Your task to perform on an android device: turn off improve location accuracy Image 0: 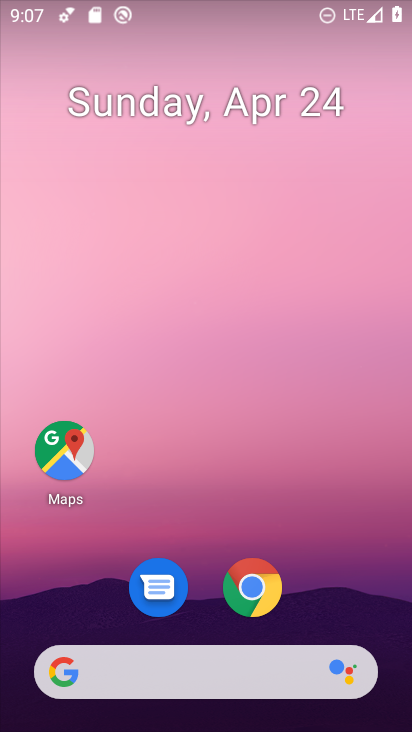
Step 0: press home button
Your task to perform on an android device: turn off improve location accuracy Image 1: 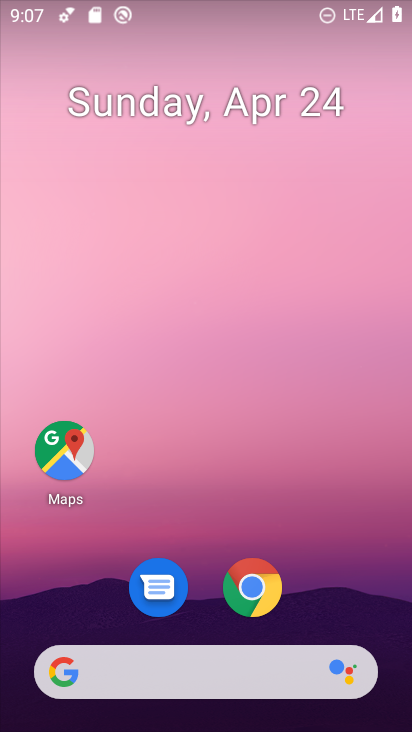
Step 1: drag from (359, 495) to (381, 205)
Your task to perform on an android device: turn off improve location accuracy Image 2: 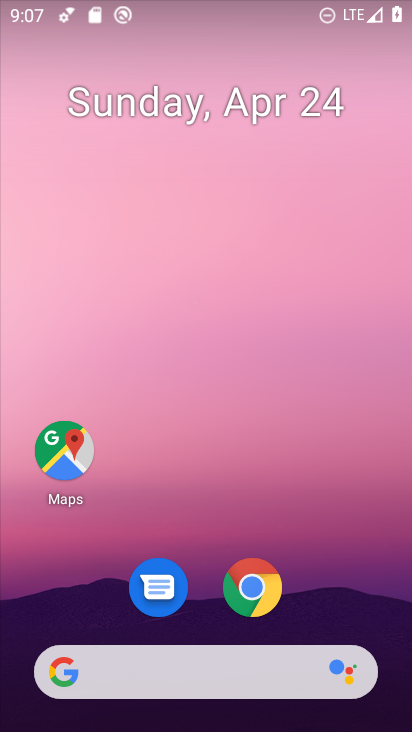
Step 2: drag from (369, 560) to (332, 149)
Your task to perform on an android device: turn off improve location accuracy Image 3: 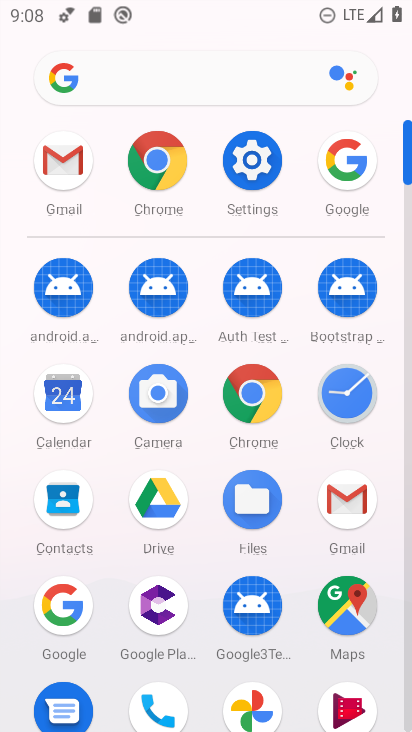
Step 3: click (263, 184)
Your task to perform on an android device: turn off improve location accuracy Image 4: 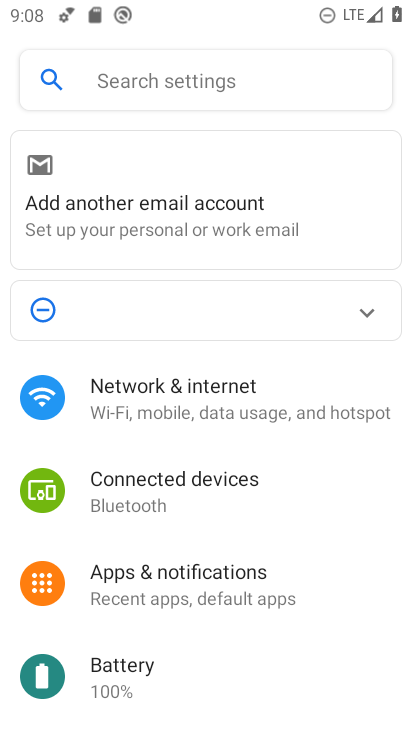
Step 4: drag from (315, 619) to (321, 292)
Your task to perform on an android device: turn off improve location accuracy Image 5: 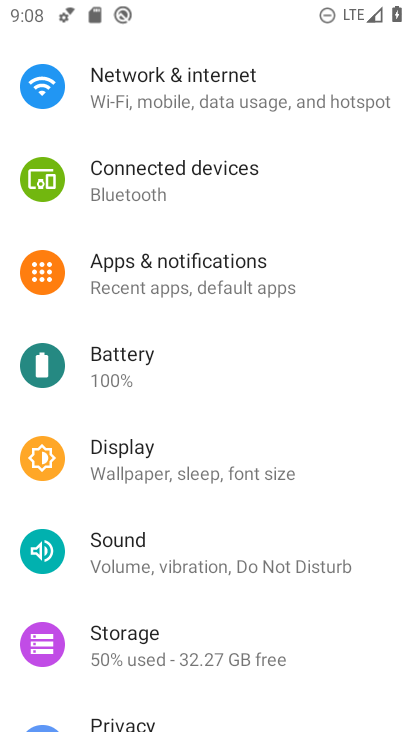
Step 5: drag from (334, 643) to (344, 316)
Your task to perform on an android device: turn off improve location accuracy Image 6: 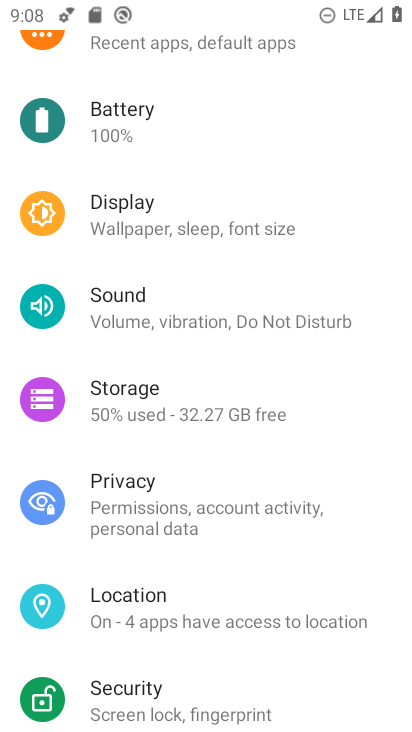
Step 6: click (162, 609)
Your task to perform on an android device: turn off improve location accuracy Image 7: 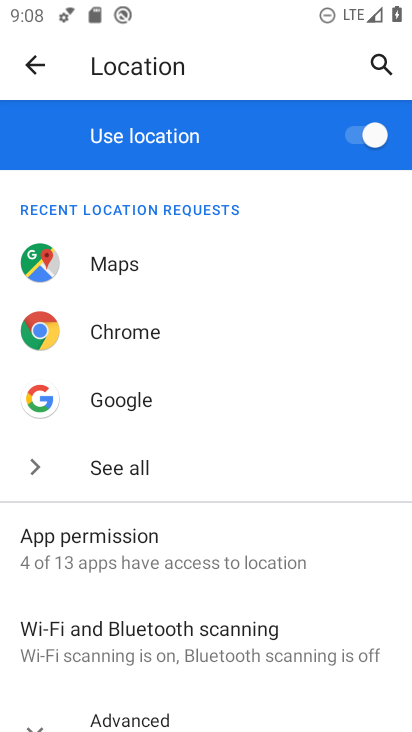
Step 7: drag from (336, 605) to (364, 388)
Your task to perform on an android device: turn off improve location accuracy Image 8: 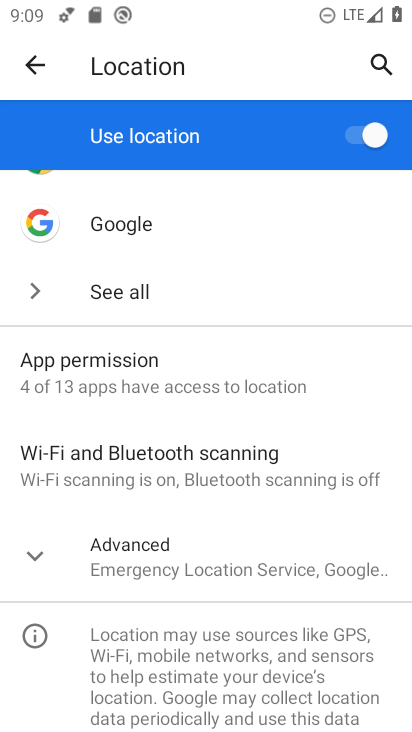
Step 8: click (191, 567)
Your task to perform on an android device: turn off improve location accuracy Image 9: 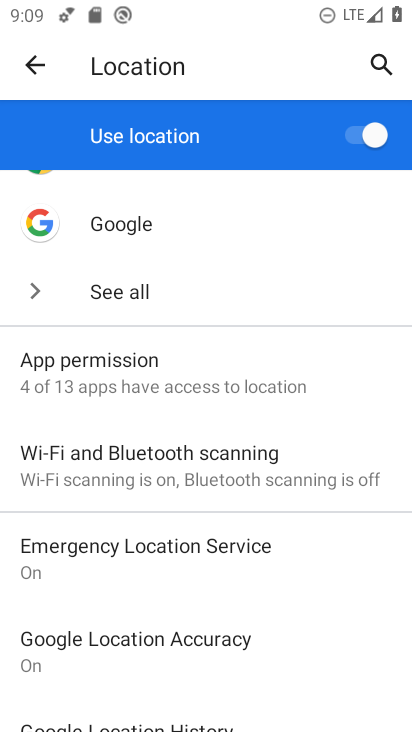
Step 9: drag from (294, 627) to (333, 391)
Your task to perform on an android device: turn off improve location accuracy Image 10: 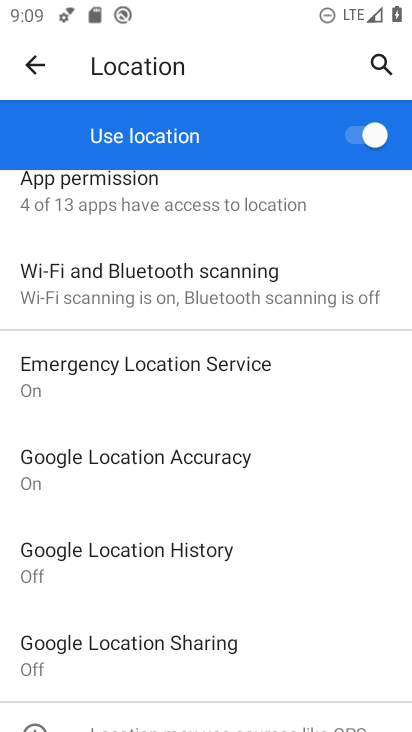
Step 10: click (127, 459)
Your task to perform on an android device: turn off improve location accuracy Image 11: 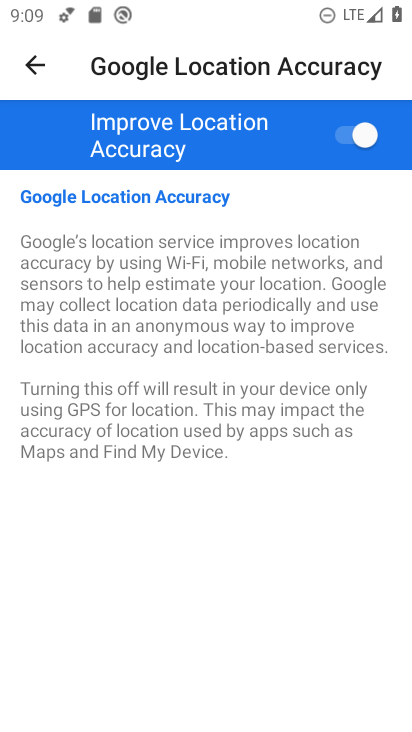
Step 11: click (342, 140)
Your task to perform on an android device: turn off improve location accuracy Image 12: 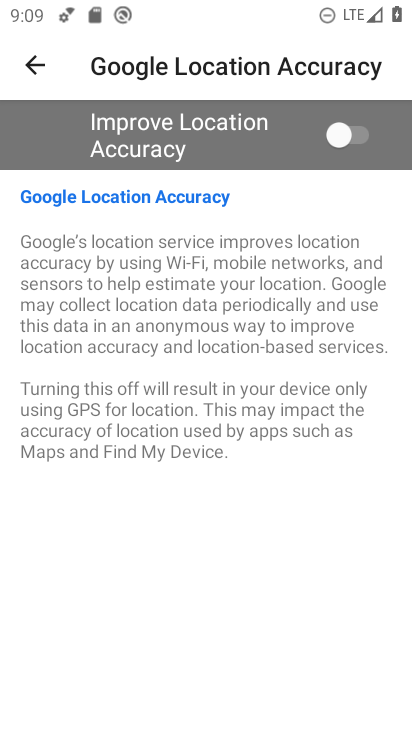
Step 12: task complete